Your task to perform on an android device: Go to accessibility settings Image 0: 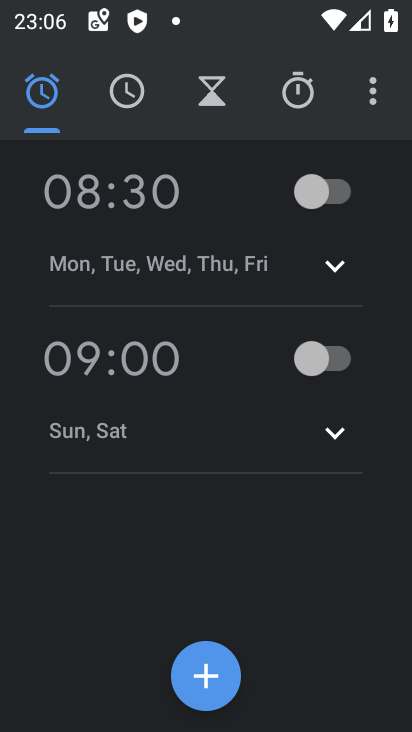
Step 0: press home button
Your task to perform on an android device: Go to accessibility settings Image 1: 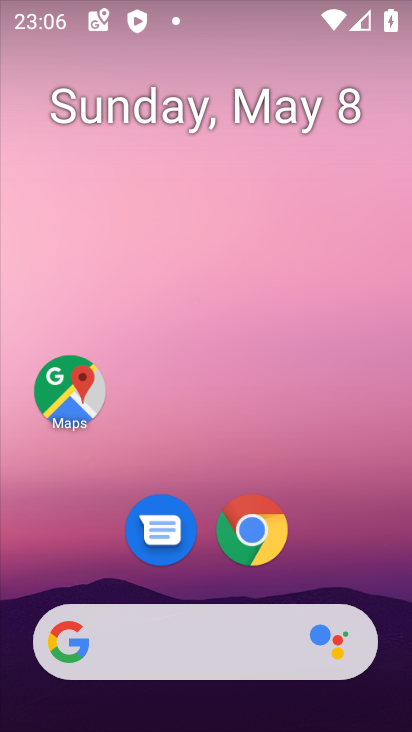
Step 1: drag from (393, 557) to (363, 213)
Your task to perform on an android device: Go to accessibility settings Image 2: 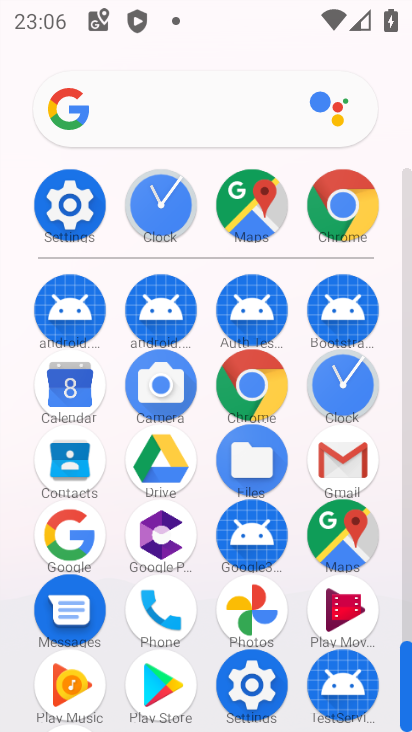
Step 2: click (78, 214)
Your task to perform on an android device: Go to accessibility settings Image 3: 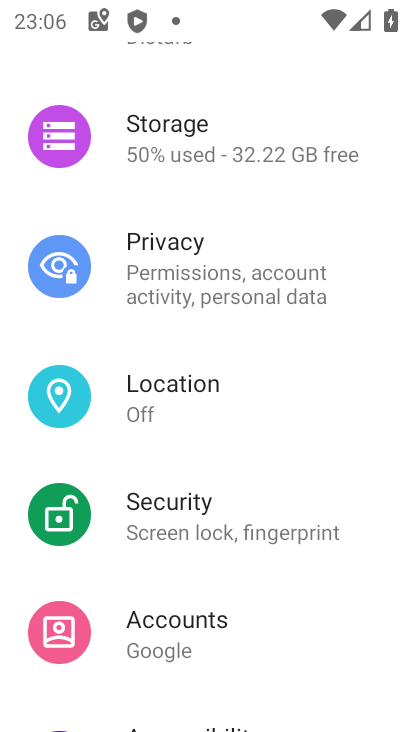
Step 3: drag from (280, 626) to (279, 279)
Your task to perform on an android device: Go to accessibility settings Image 4: 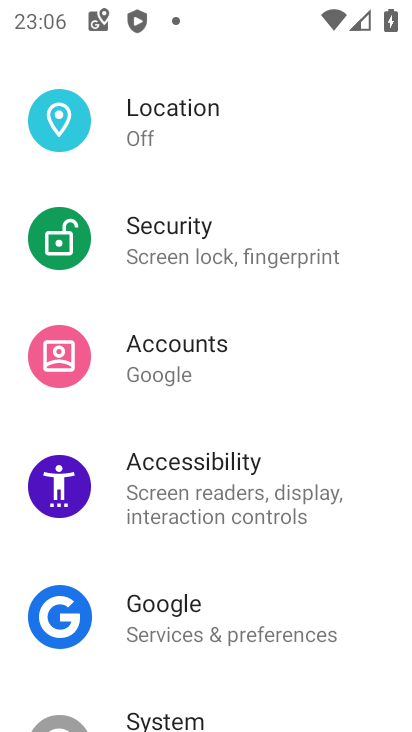
Step 4: click (261, 498)
Your task to perform on an android device: Go to accessibility settings Image 5: 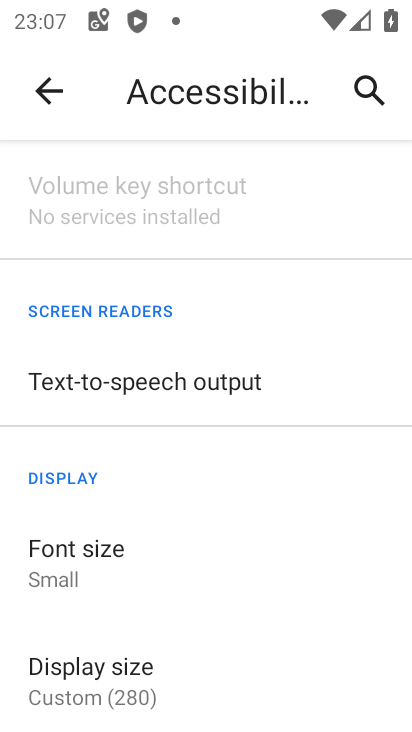
Step 5: task complete